Your task to perform on an android device: Open settings Image 0: 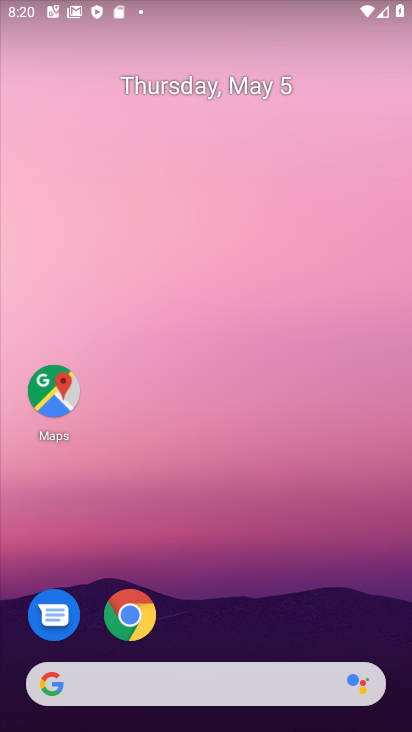
Step 0: drag from (215, 641) to (289, 10)
Your task to perform on an android device: Open settings Image 1: 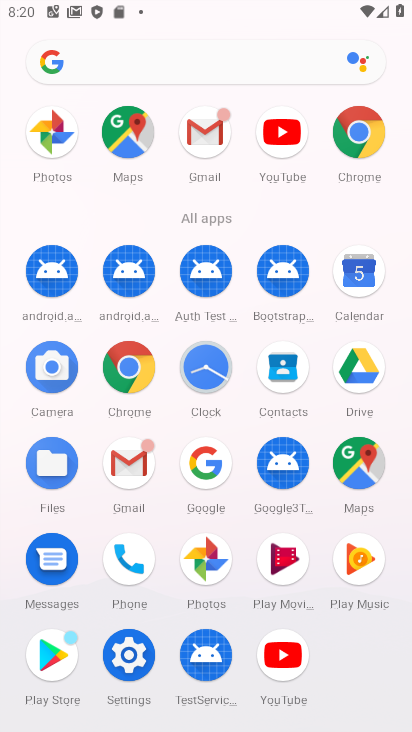
Step 1: click (128, 661)
Your task to perform on an android device: Open settings Image 2: 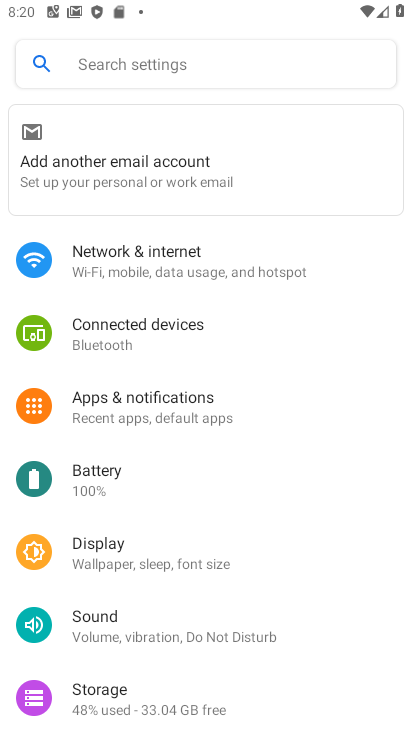
Step 2: task complete